Your task to perform on an android device: Open display settings Image 0: 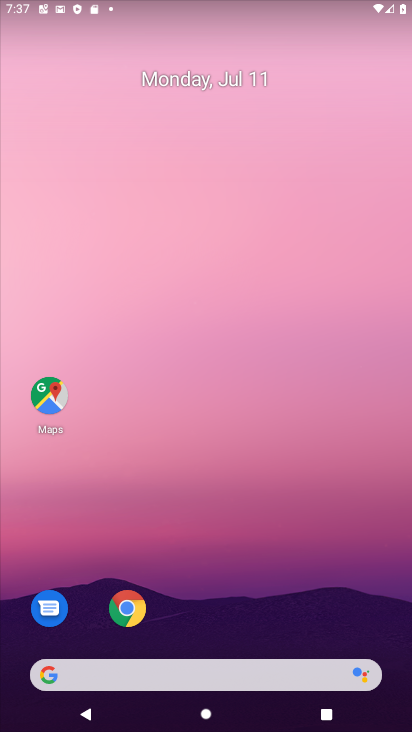
Step 0: drag from (245, 630) to (245, 2)
Your task to perform on an android device: Open display settings Image 1: 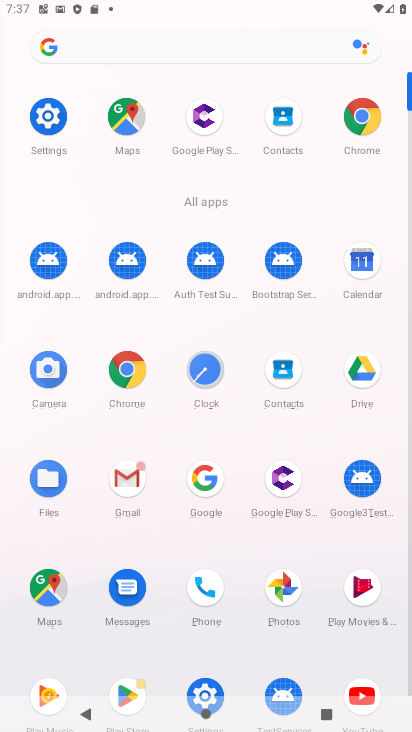
Step 1: click (210, 682)
Your task to perform on an android device: Open display settings Image 2: 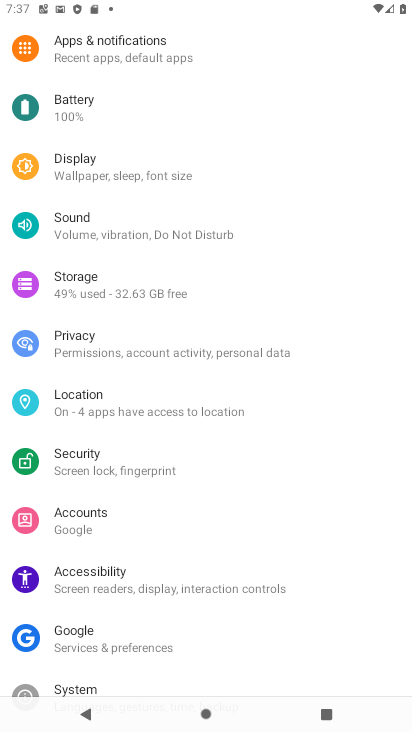
Step 2: click (160, 183)
Your task to perform on an android device: Open display settings Image 3: 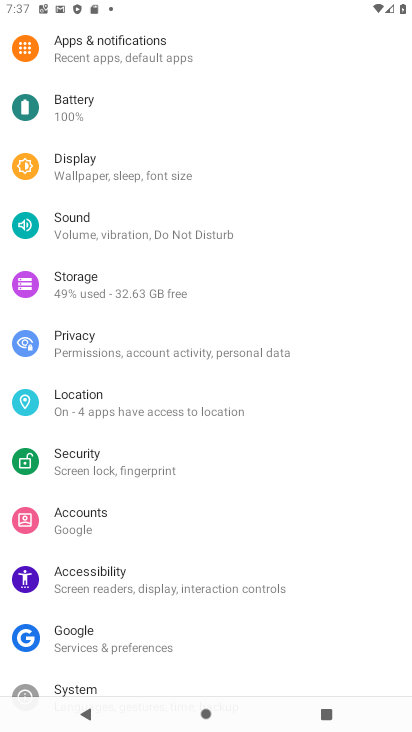
Step 3: click (160, 183)
Your task to perform on an android device: Open display settings Image 4: 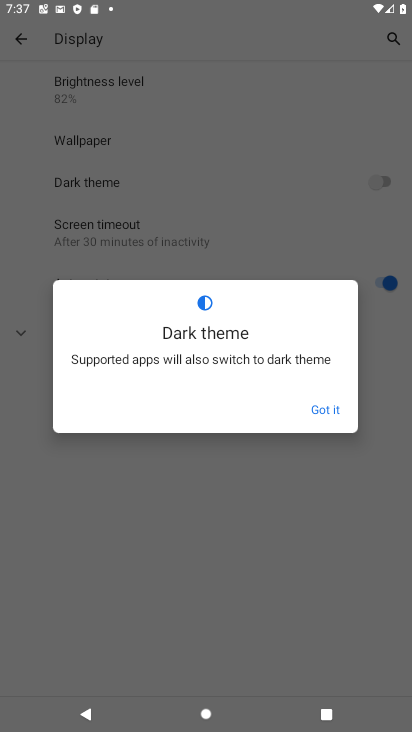
Step 4: task complete